Your task to perform on an android device: toggle notifications settings in the gmail app Image 0: 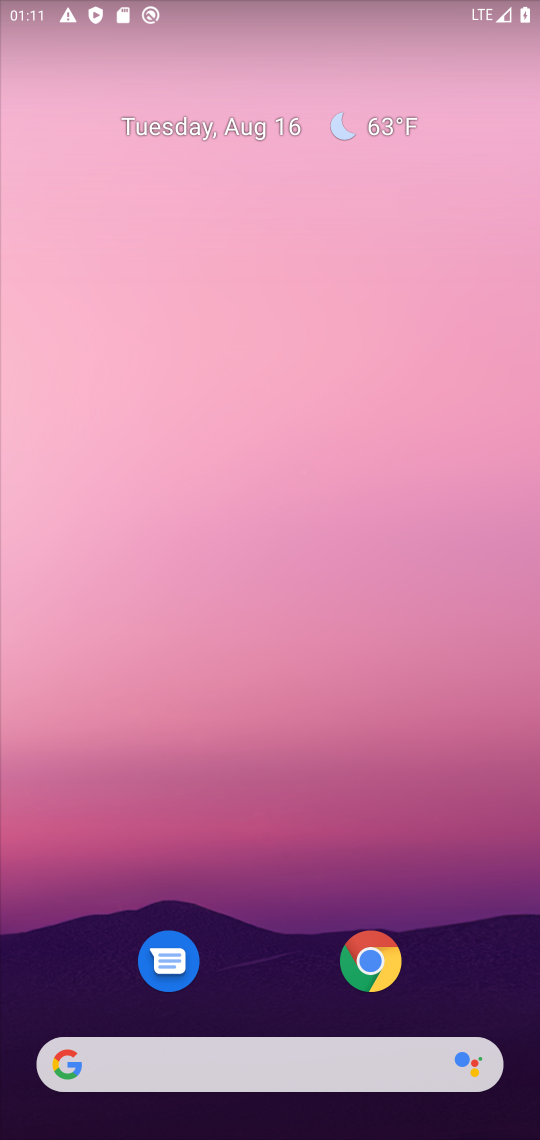
Step 0: drag from (244, 973) to (255, 389)
Your task to perform on an android device: toggle notifications settings in the gmail app Image 1: 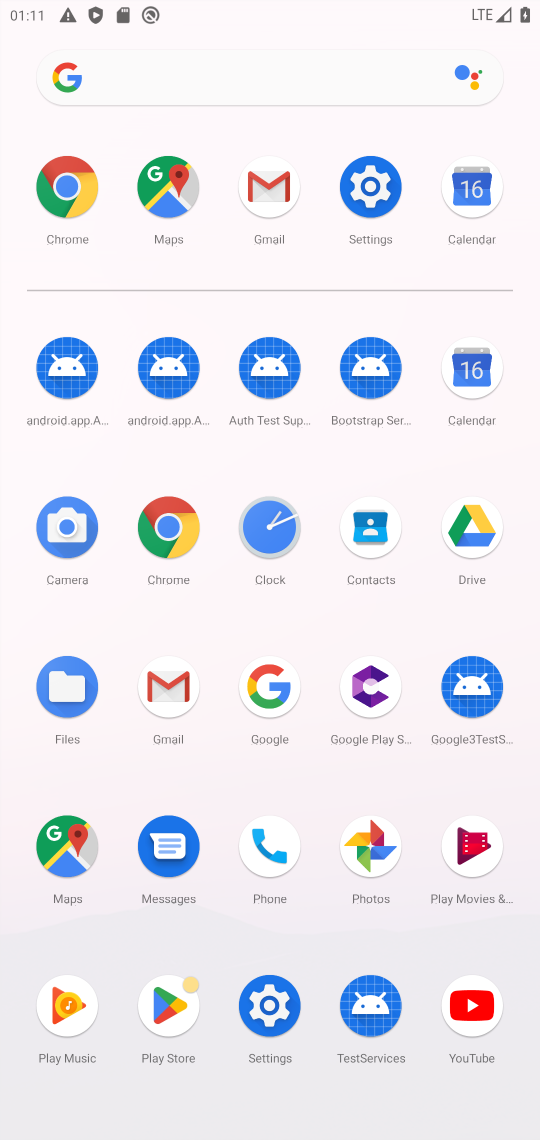
Step 1: click (137, 691)
Your task to perform on an android device: toggle notifications settings in the gmail app Image 2: 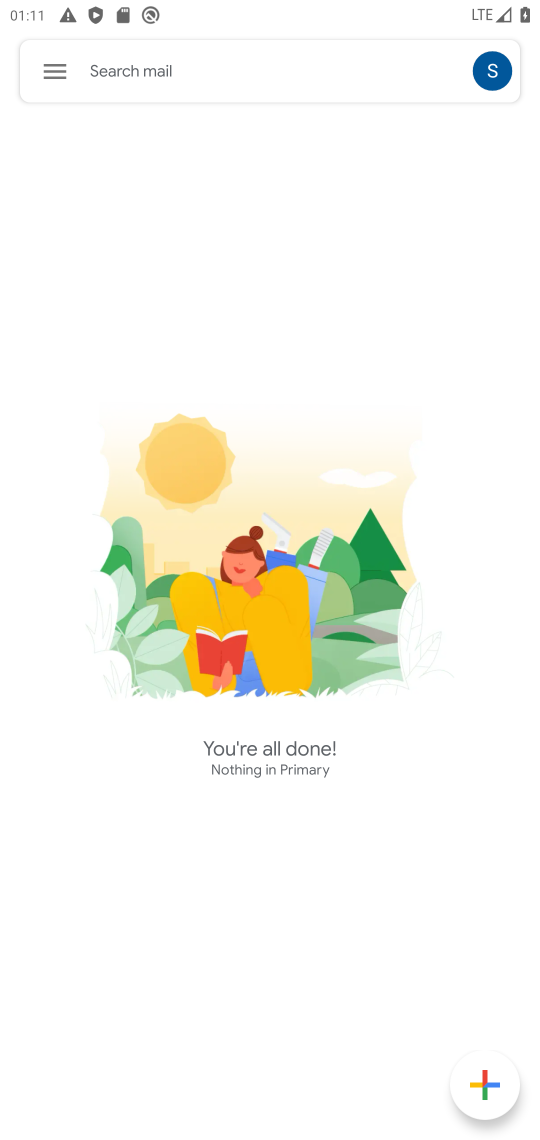
Step 2: press home button
Your task to perform on an android device: toggle notifications settings in the gmail app Image 3: 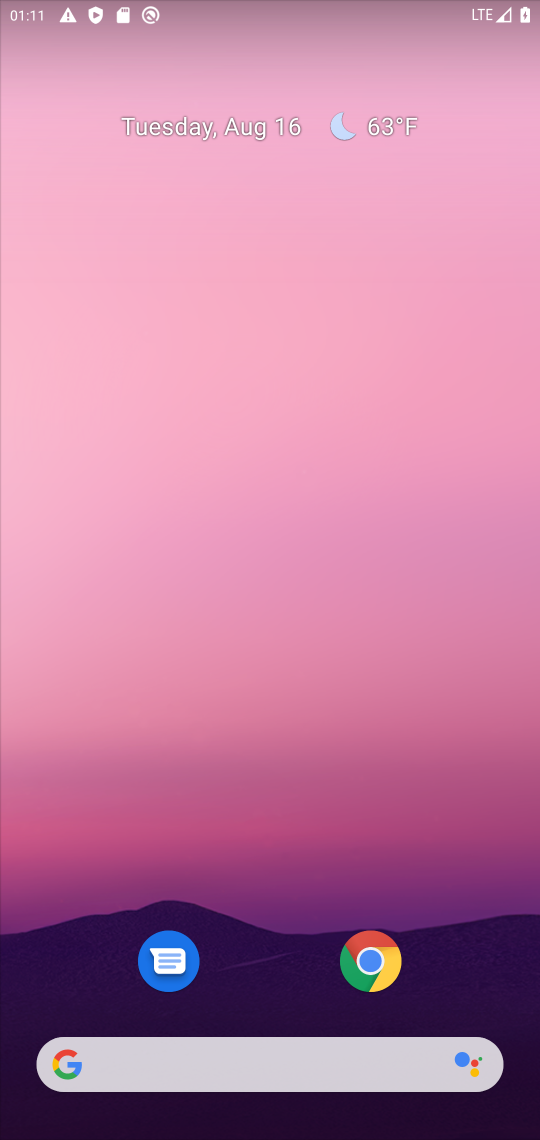
Step 3: drag from (295, 966) to (274, 0)
Your task to perform on an android device: toggle notifications settings in the gmail app Image 4: 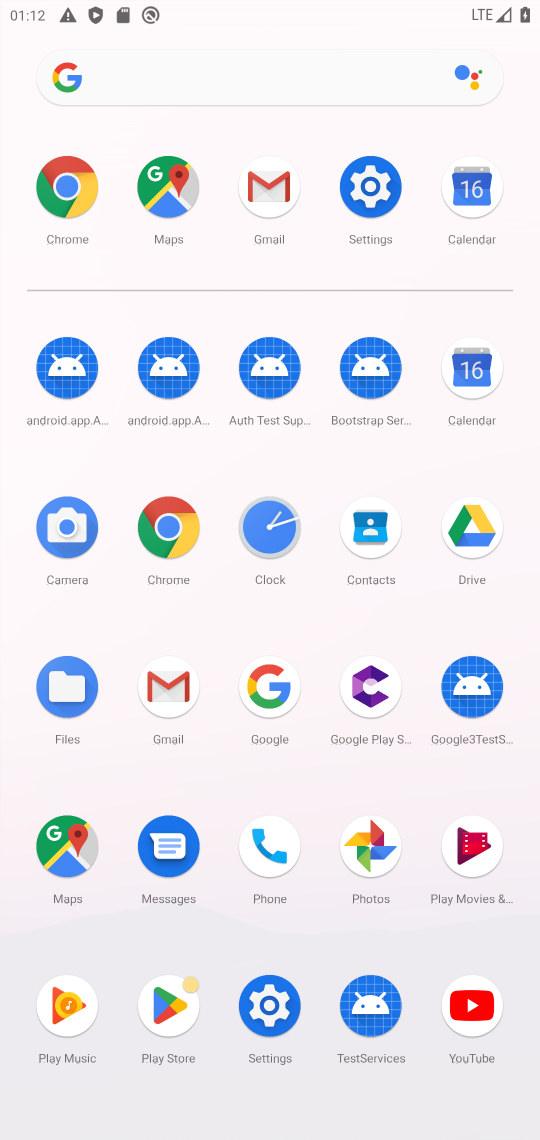
Step 4: click (160, 686)
Your task to perform on an android device: toggle notifications settings in the gmail app Image 5: 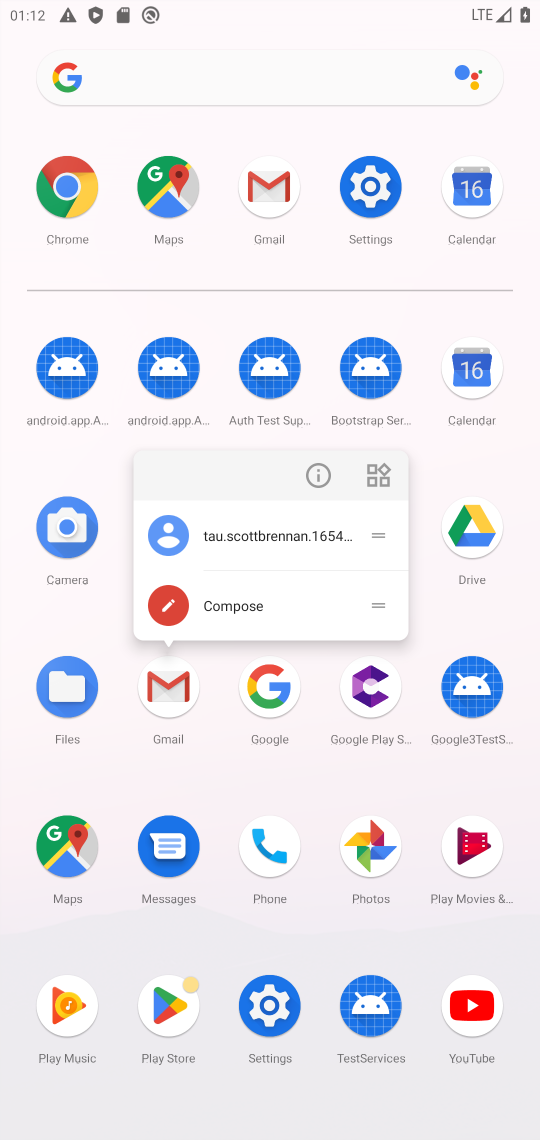
Step 5: click (327, 464)
Your task to perform on an android device: toggle notifications settings in the gmail app Image 6: 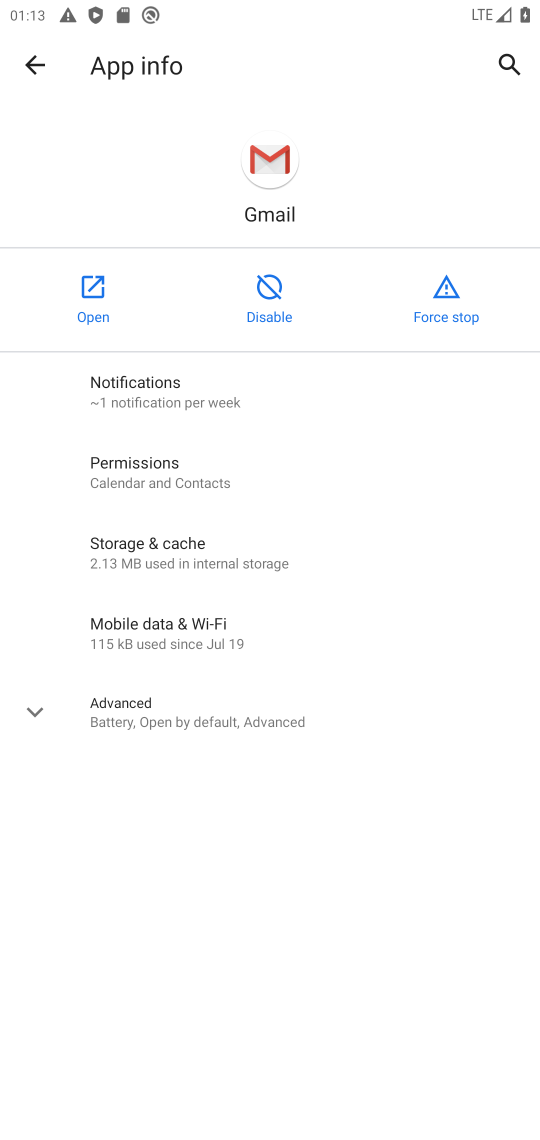
Step 6: click (108, 406)
Your task to perform on an android device: toggle notifications settings in the gmail app Image 7: 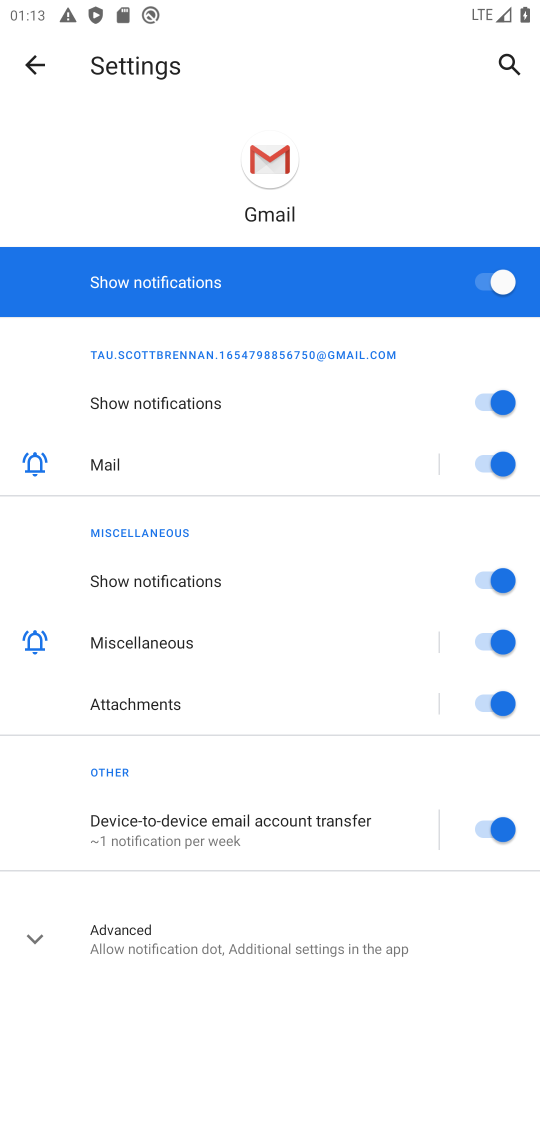
Step 7: click (291, 263)
Your task to perform on an android device: toggle notifications settings in the gmail app Image 8: 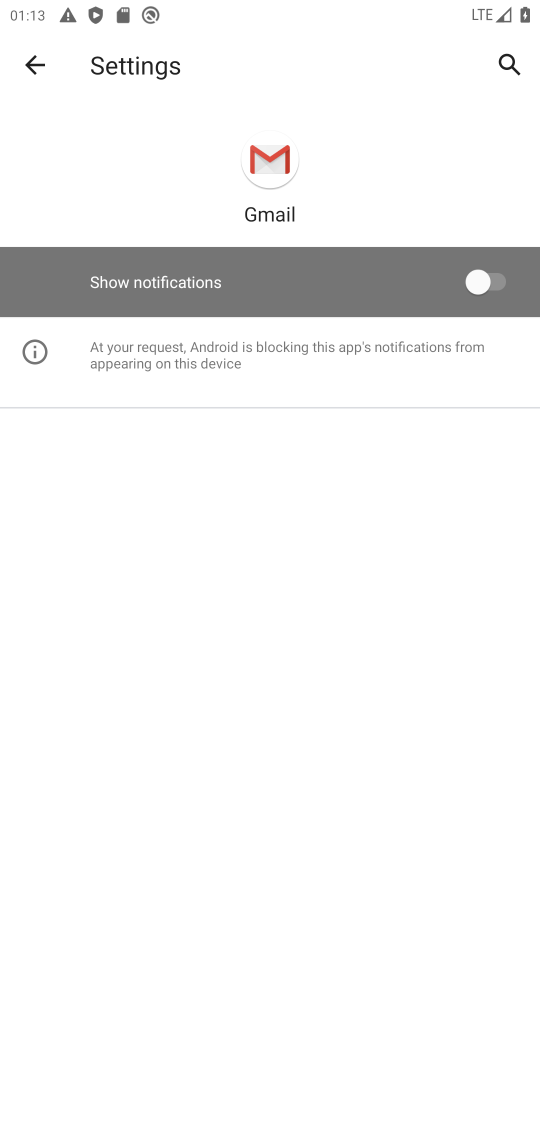
Step 8: task complete